Your task to perform on an android device: turn off picture-in-picture Image 0: 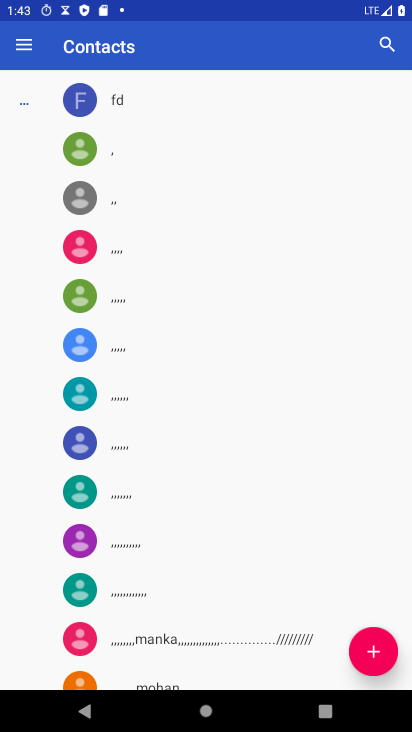
Step 0: press home button
Your task to perform on an android device: turn off picture-in-picture Image 1: 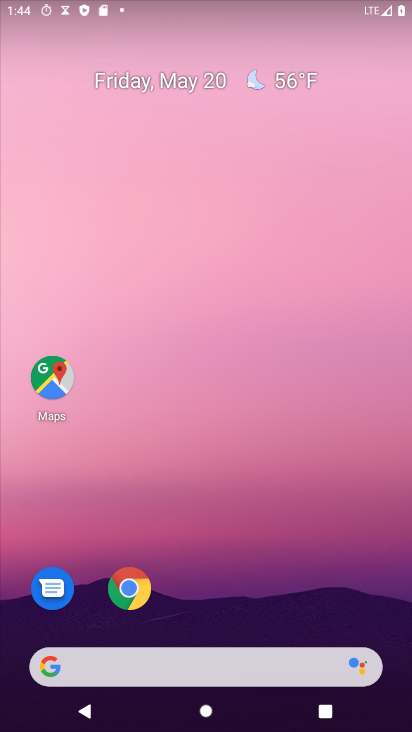
Step 1: drag from (14, 704) to (229, 186)
Your task to perform on an android device: turn off picture-in-picture Image 2: 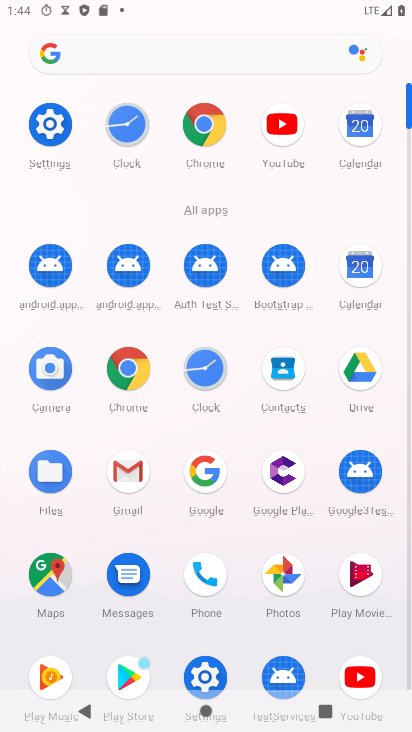
Step 2: click (54, 117)
Your task to perform on an android device: turn off picture-in-picture Image 3: 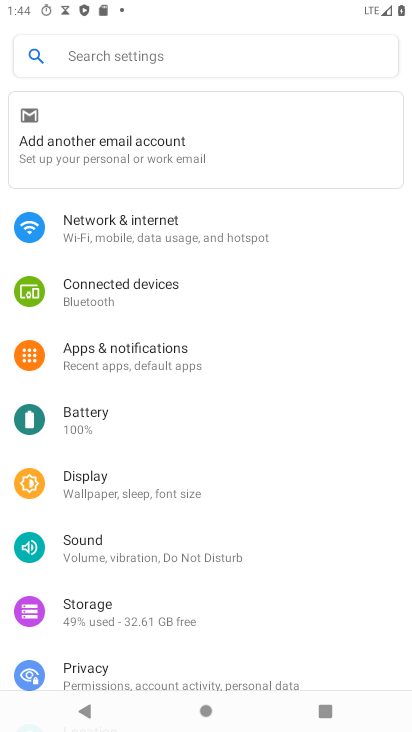
Step 3: click (136, 365)
Your task to perform on an android device: turn off picture-in-picture Image 4: 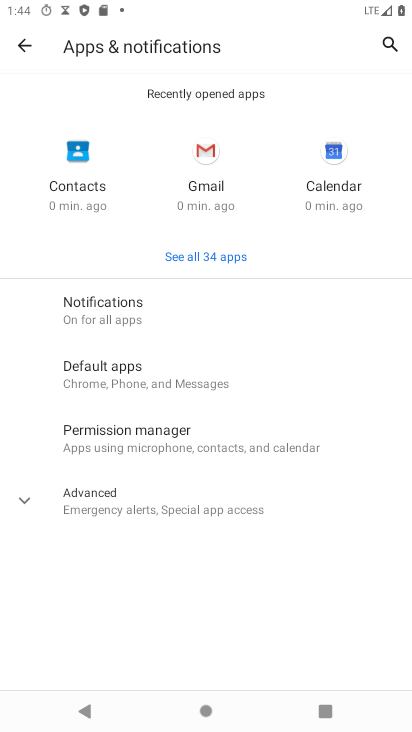
Step 4: click (131, 513)
Your task to perform on an android device: turn off picture-in-picture Image 5: 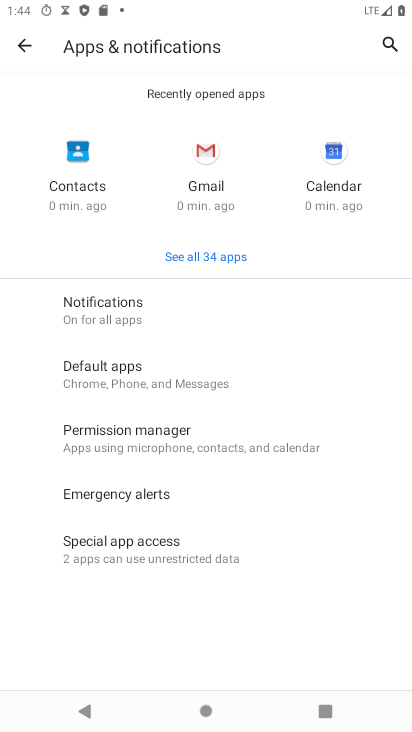
Step 5: click (120, 568)
Your task to perform on an android device: turn off picture-in-picture Image 6: 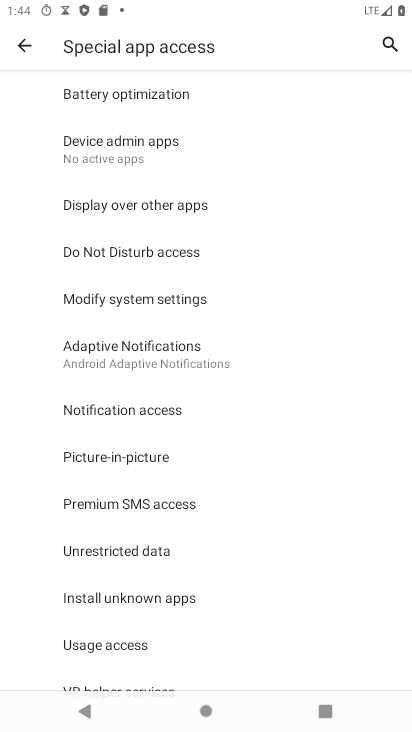
Step 6: click (135, 461)
Your task to perform on an android device: turn off picture-in-picture Image 7: 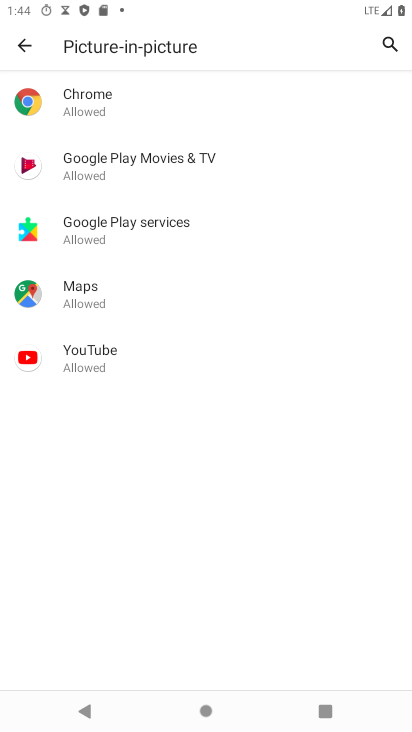
Step 7: click (124, 116)
Your task to perform on an android device: turn off picture-in-picture Image 8: 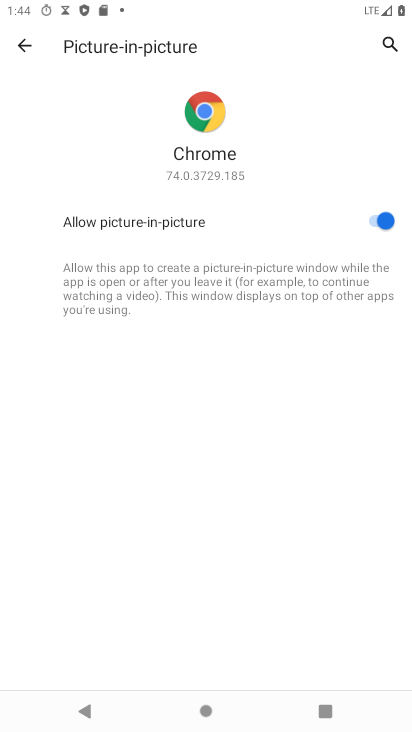
Step 8: click (390, 228)
Your task to perform on an android device: turn off picture-in-picture Image 9: 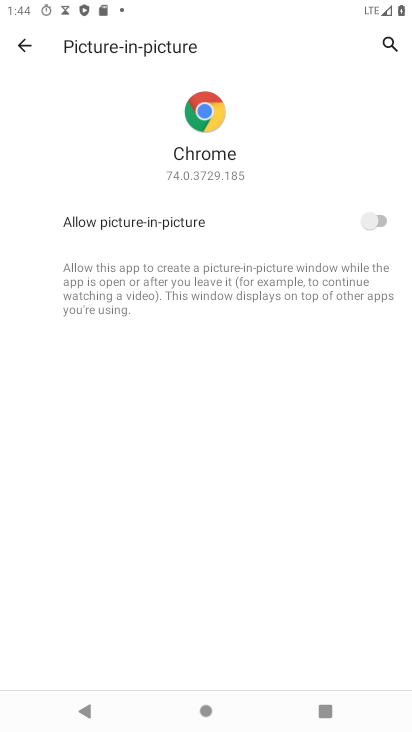
Step 9: task complete